Your task to perform on an android device: Open Chrome and go to settings Image 0: 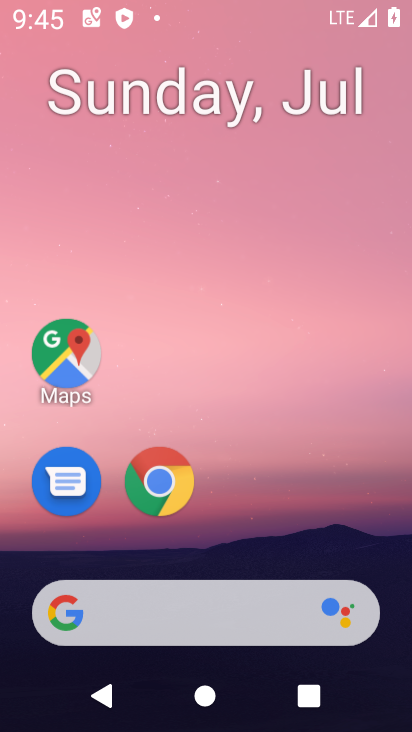
Step 0: press home button
Your task to perform on an android device: Open Chrome and go to settings Image 1: 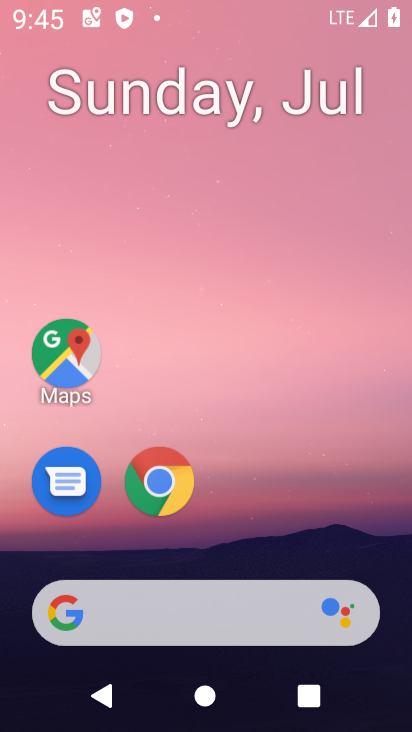
Step 1: click (351, 30)
Your task to perform on an android device: Open Chrome and go to settings Image 2: 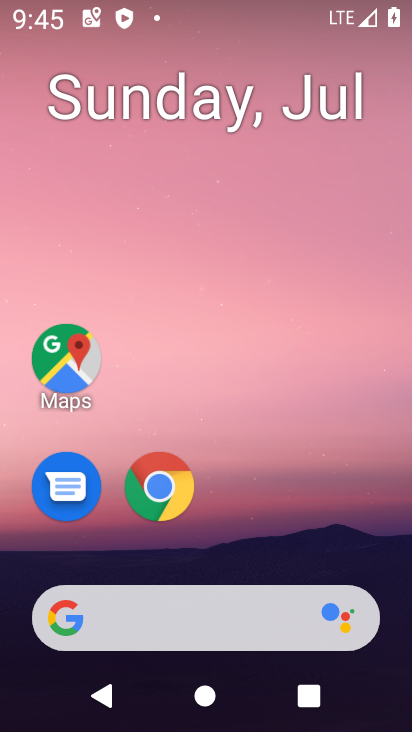
Step 2: drag from (340, 507) to (346, 81)
Your task to perform on an android device: Open Chrome and go to settings Image 3: 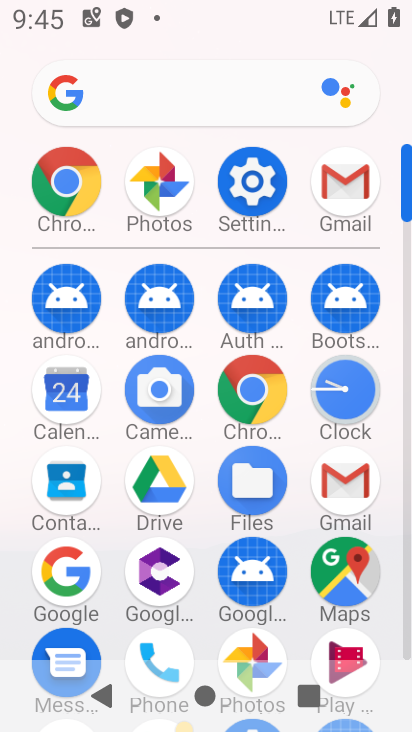
Step 3: click (260, 395)
Your task to perform on an android device: Open Chrome and go to settings Image 4: 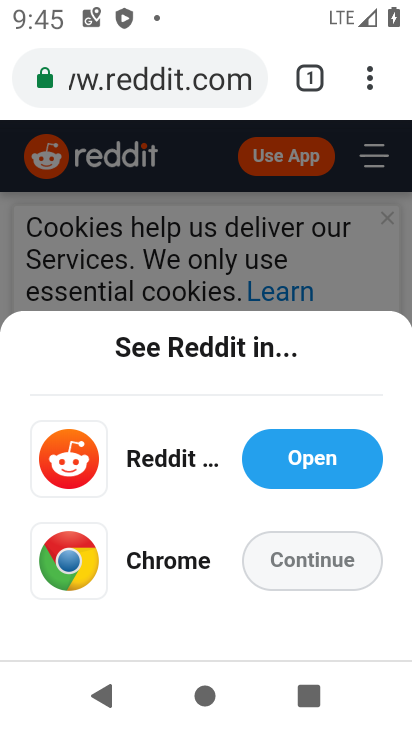
Step 4: click (368, 86)
Your task to perform on an android device: Open Chrome and go to settings Image 5: 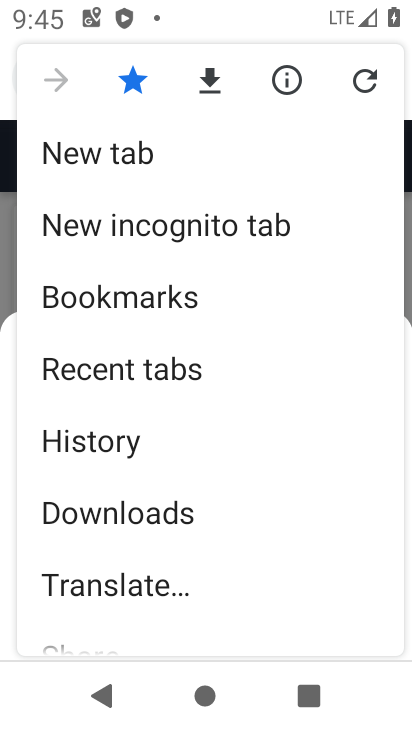
Step 5: task complete